Your task to perform on an android device: What's the weather today? Image 0: 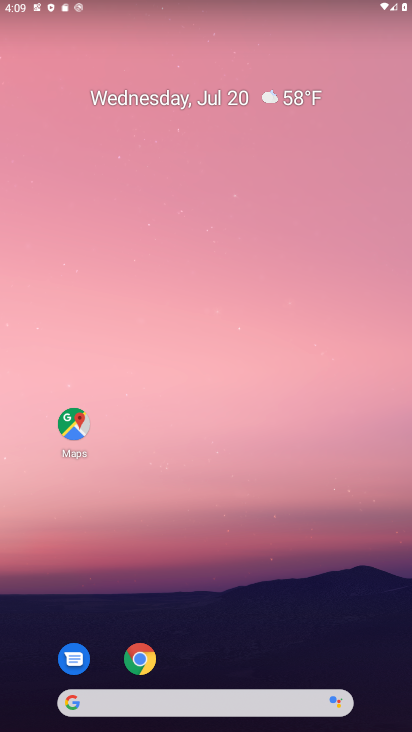
Step 0: drag from (256, 585) to (253, 129)
Your task to perform on an android device: What's the weather today? Image 1: 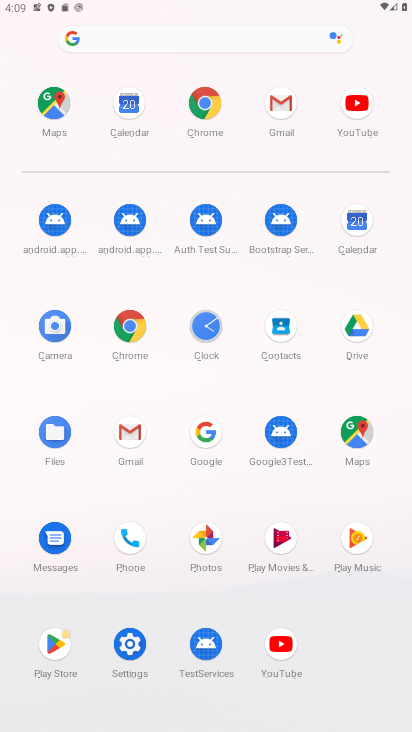
Step 1: click (197, 110)
Your task to perform on an android device: What's the weather today? Image 2: 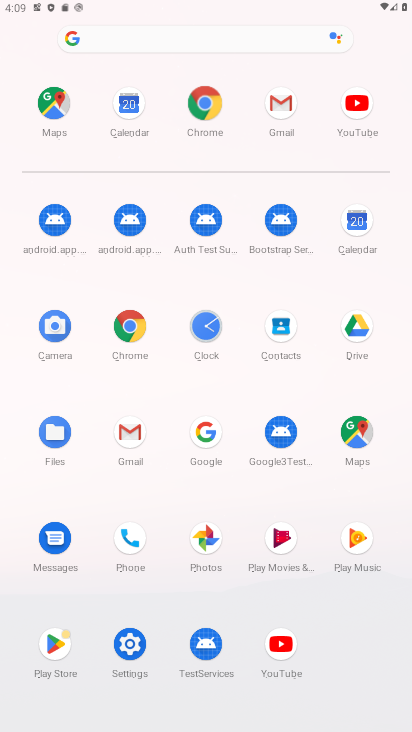
Step 2: click (198, 101)
Your task to perform on an android device: What's the weather today? Image 3: 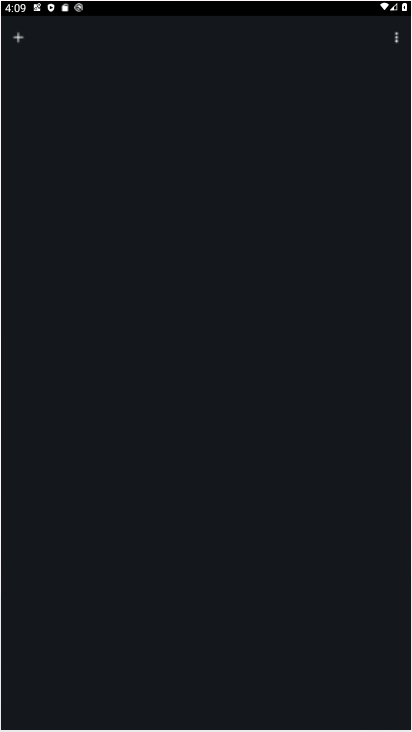
Step 3: click (228, 94)
Your task to perform on an android device: What's the weather today? Image 4: 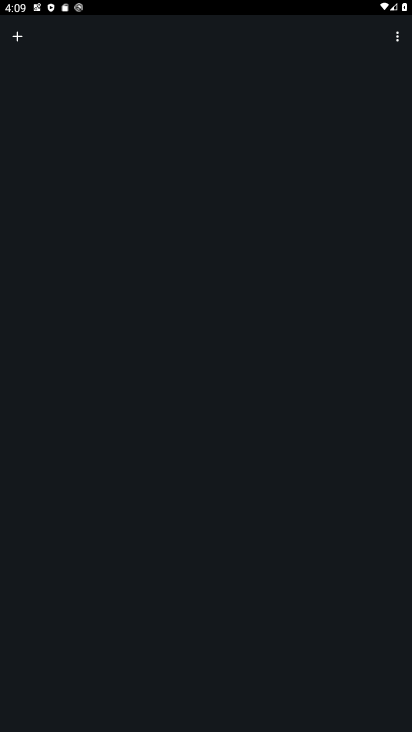
Step 4: click (21, 37)
Your task to perform on an android device: What's the weather today? Image 5: 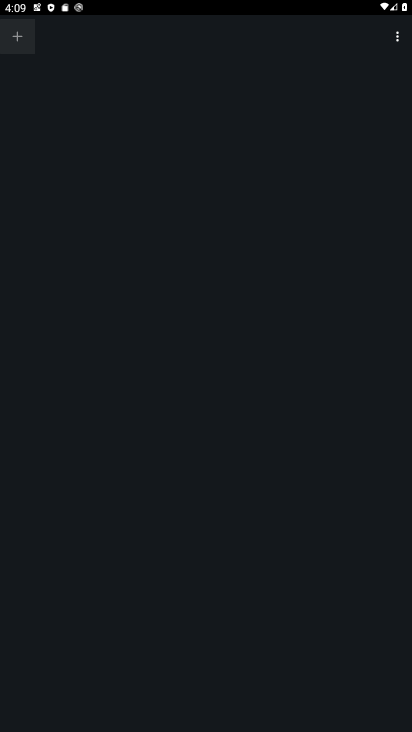
Step 5: click (21, 37)
Your task to perform on an android device: What's the weather today? Image 6: 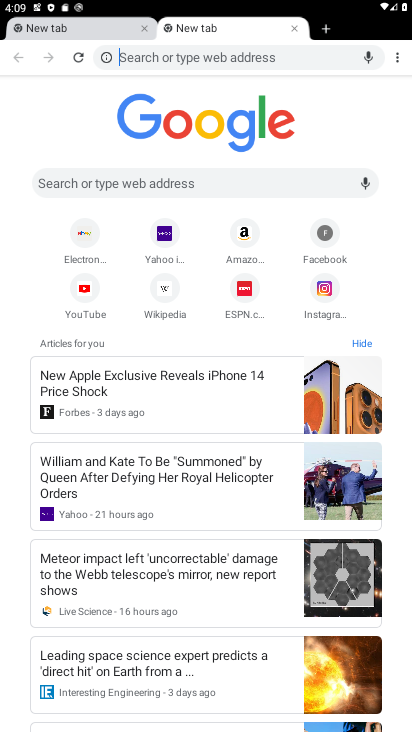
Step 6: type "what's the weather today?"
Your task to perform on an android device: What's the weather today? Image 7: 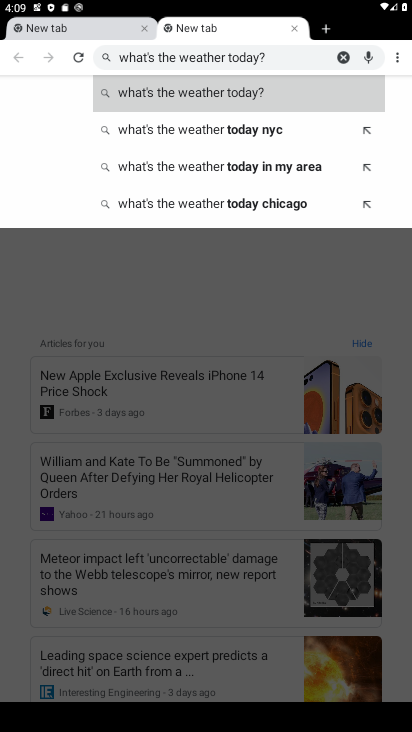
Step 7: click (254, 85)
Your task to perform on an android device: What's the weather today? Image 8: 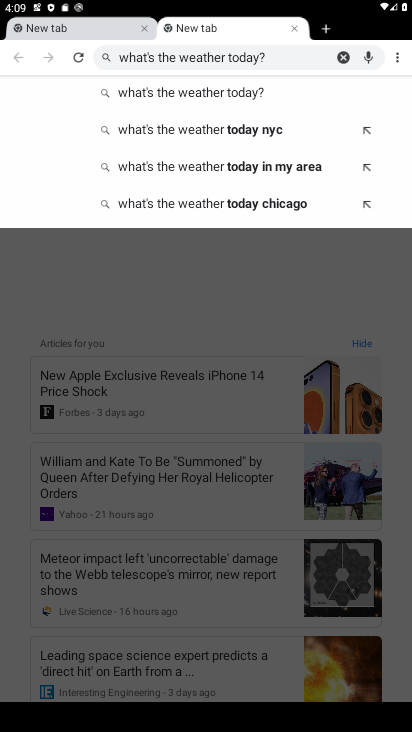
Step 8: click (253, 86)
Your task to perform on an android device: What's the weather today? Image 9: 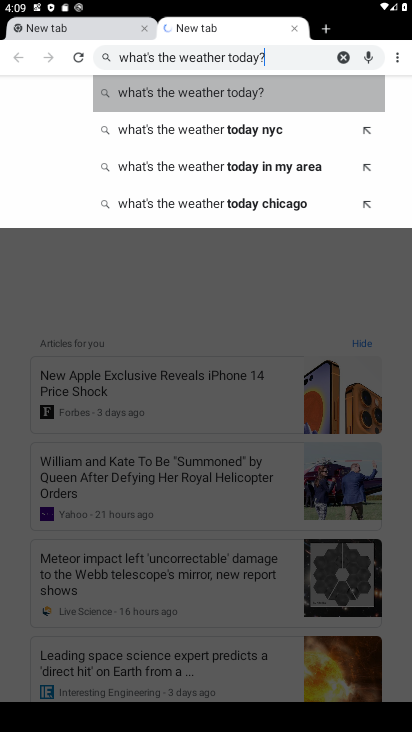
Step 9: click (253, 87)
Your task to perform on an android device: What's the weather today? Image 10: 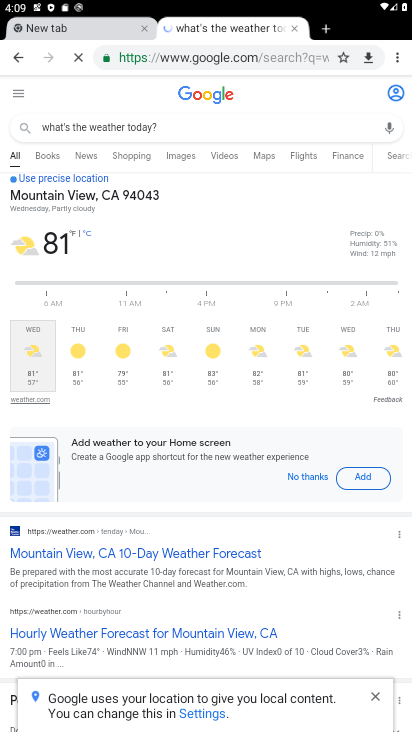
Step 10: task complete